Your task to perform on an android device: Search for pizza restaurants on Maps Image 0: 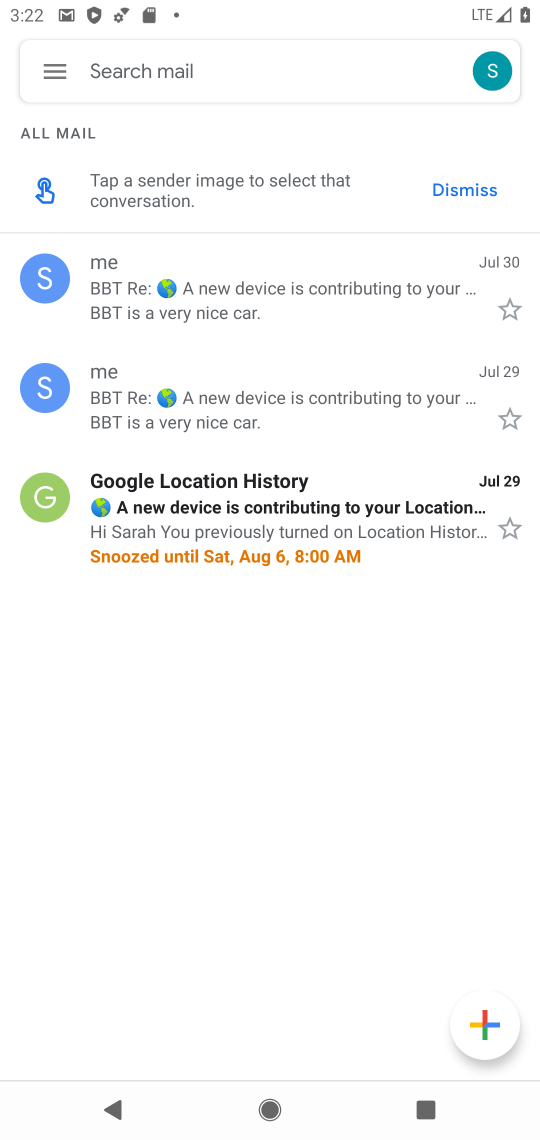
Step 0: press home button
Your task to perform on an android device: Search for pizza restaurants on Maps Image 1: 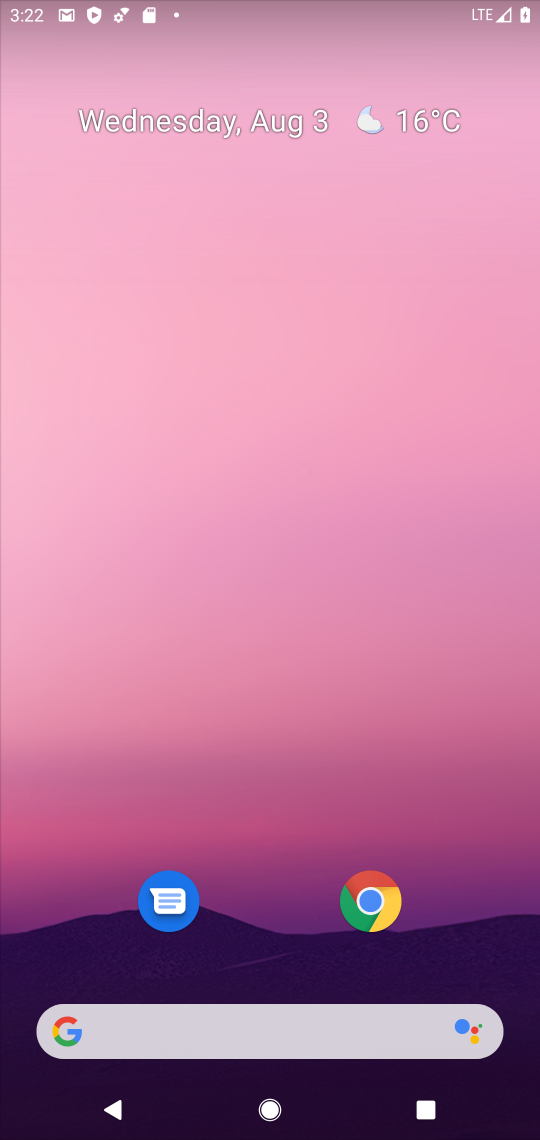
Step 1: drag from (186, 928) to (242, 372)
Your task to perform on an android device: Search for pizza restaurants on Maps Image 2: 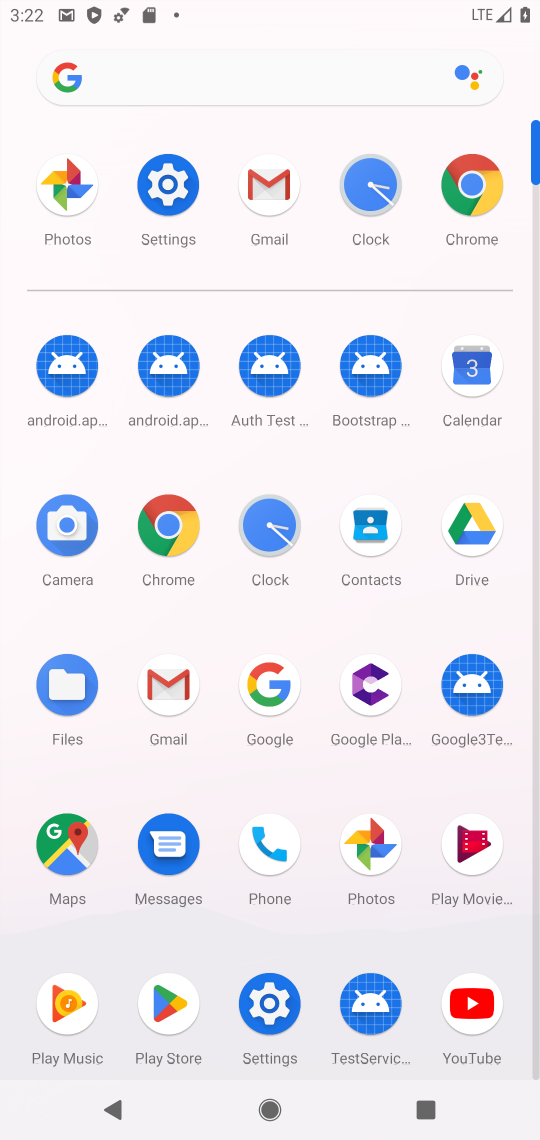
Step 2: click (66, 832)
Your task to perform on an android device: Search for pizza restaurants on Maps Image 3: 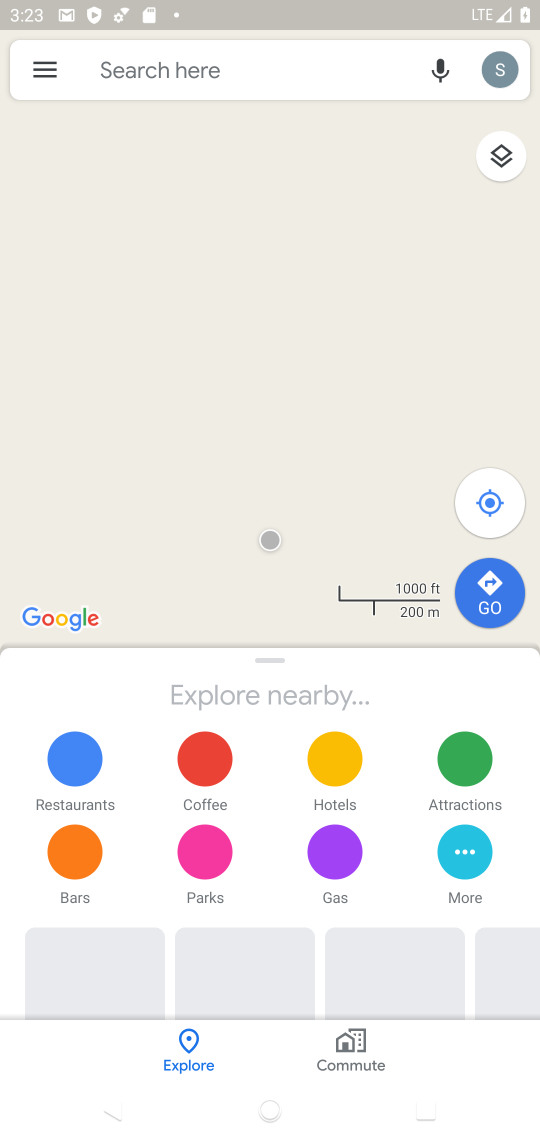
Step 3: click (203, 80)
Your task to perform on an android device: Search for pizza restaurants on Maps Image 4: 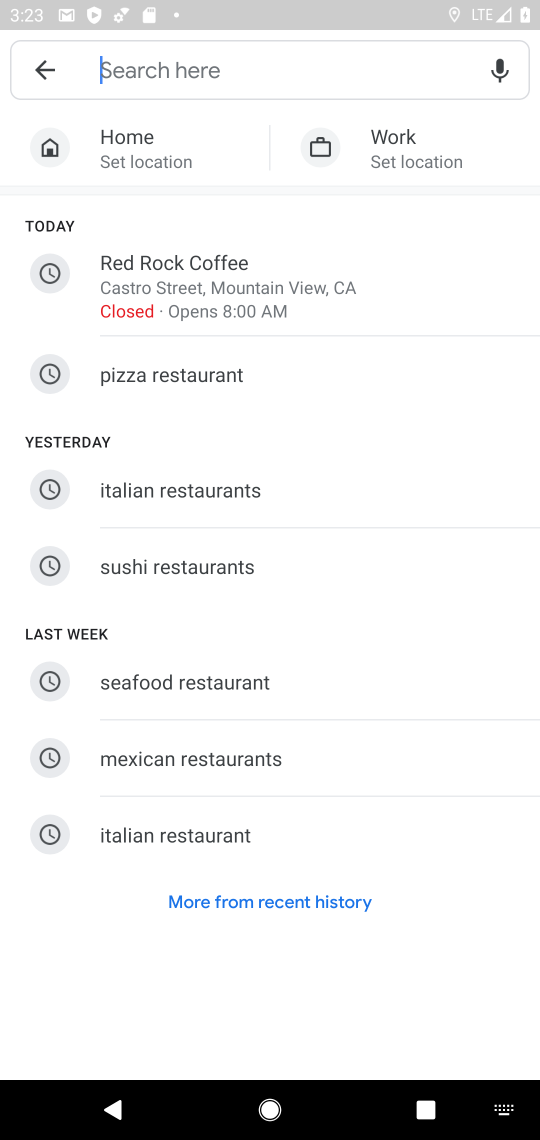
Step 4: click (171, 382)
Your task to perform on an android device: Search for pizza restaurants on Maps Image 5: 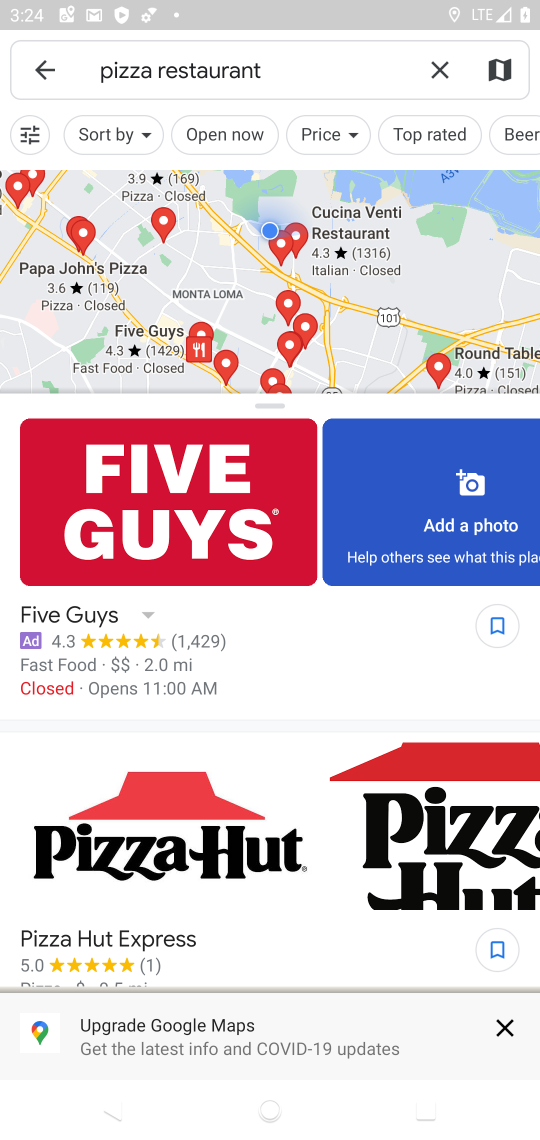
Step 5: task complete